Your task to perform on an android device: Open privacy settings Image 0: 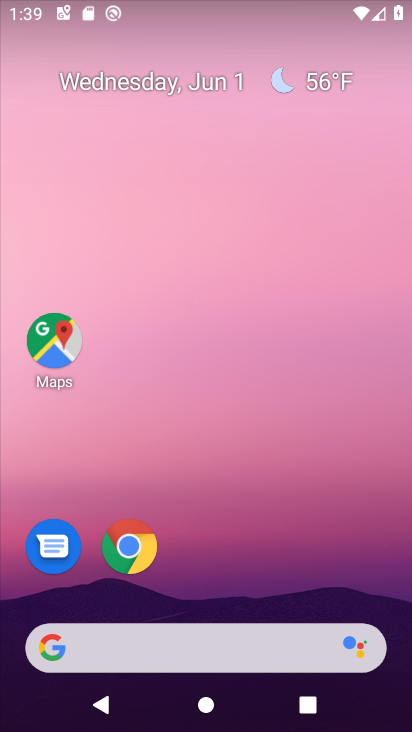
Step 0: drag from (176, 730) to (160, 66)
Your task to perform on an android device: Open privacy settings Image 1: 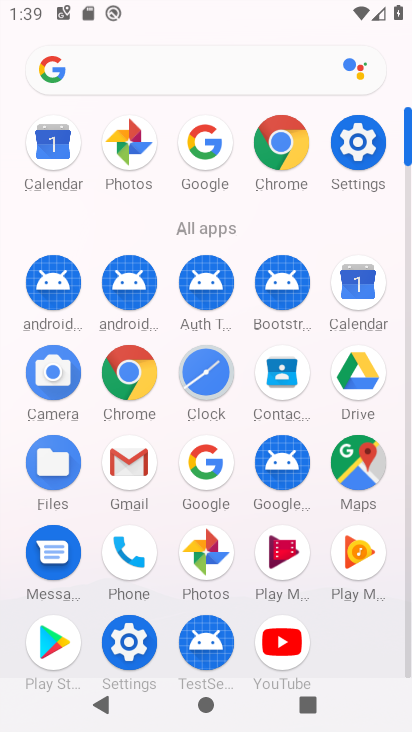
Step 1: click (375, 128)
Your task to perform on an android device: Open privacy settings Image 2: 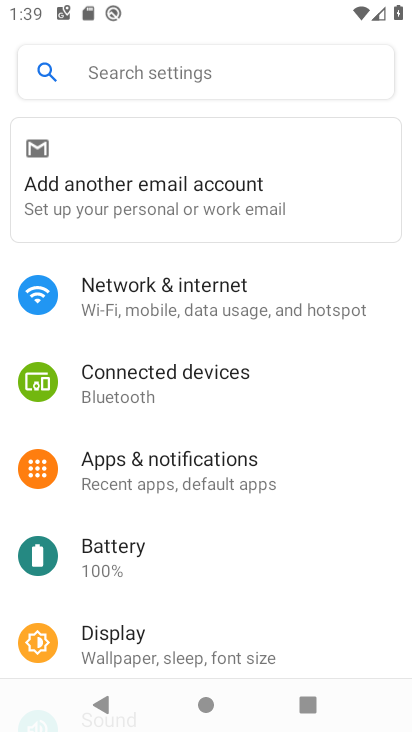
Step 2: drag from (251, 610) to (271, 202)
Your task to perform on an android device: Open privacy settings Image 3: 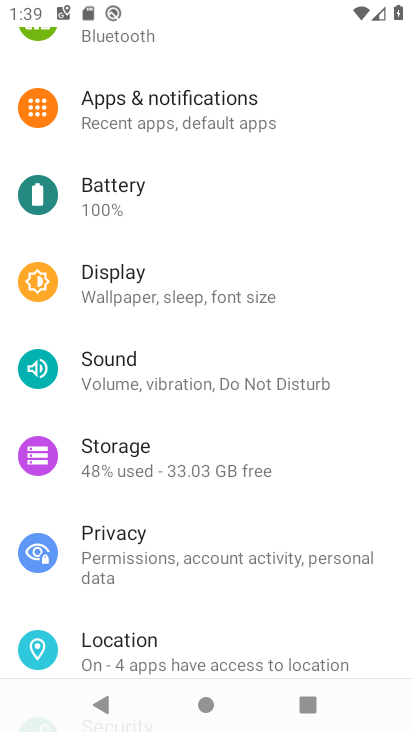
Step 3: click (172, 552)
Your task to perform on an android device: Open privacy settings Image 4: 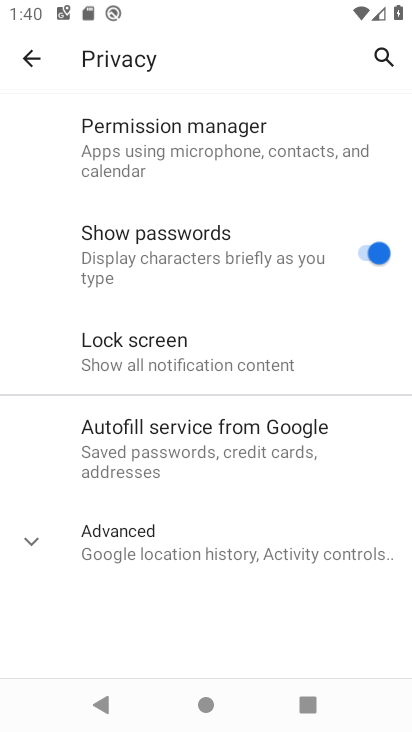
Step 4: task complete